Your task to perform on an android device: Search for seafood restaurants on Google Maps Image 0: 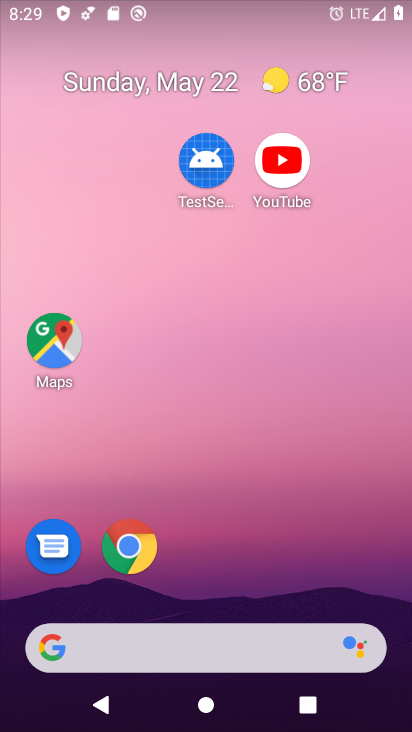
Step 0: drag from (229, 654) to (187, 421)
Your task to perform on an android device: Search for seafood restaurants on Google Maps Image 1: 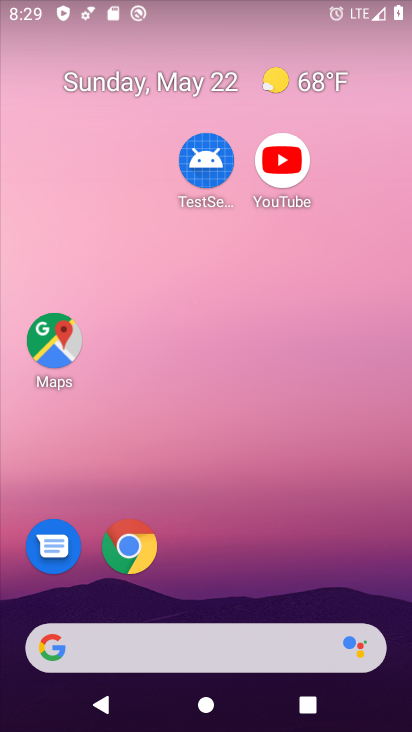
Step 1: drag from (231, 648) to (62, 137)
Your task to perform on an android device: Search for seafood restaurants on Google Maps Image 2: 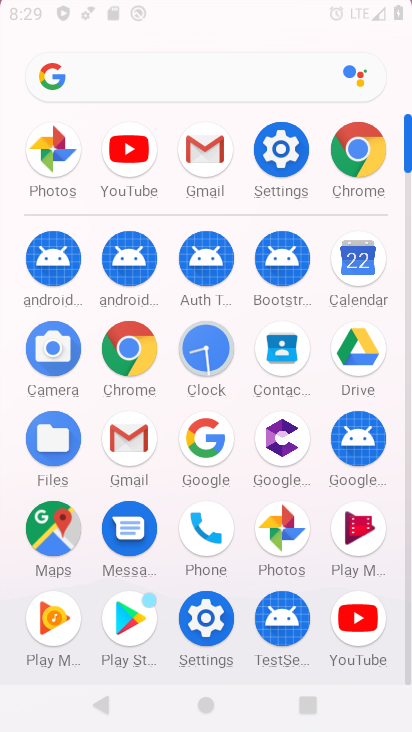
Step 2: drag from (240, 532) to (197, 150)
Your task to perform on an android device: Search for seafood restaurants on Google Maps Image 3: 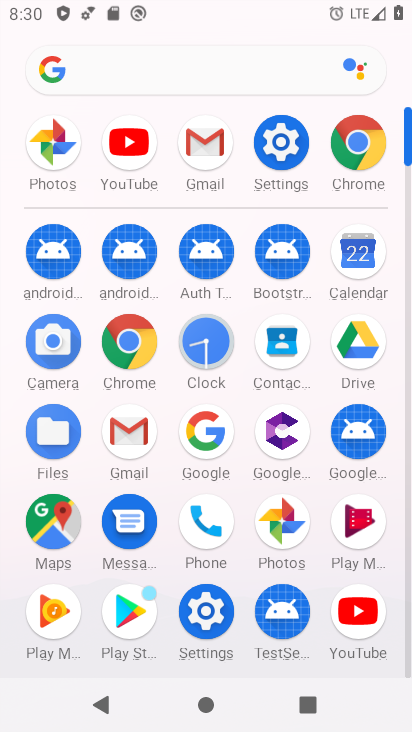
Step 3: click (67, 534)
Your task to perform on an android device: Search for seafood restaurants on Google Maps Image 4: 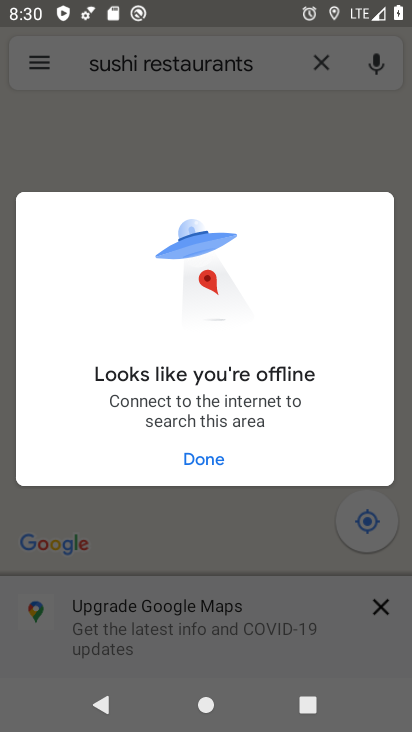
Step 4: click (92, 524)
Your task to perform on an android device: Search for seafood restaurants on Google Maps Image 5: 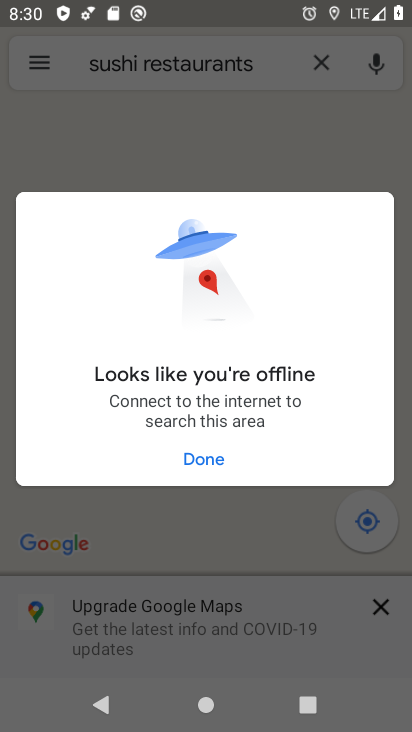
Step 5: click (50, 529)
Your task to perform on an android device: Search for seafood restaurants on Google Maps Image 6: 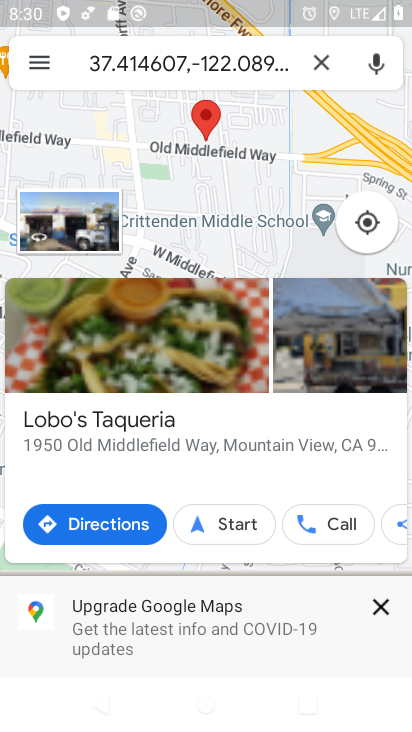
Step 6: click (318, 57)
Your task to perform on an android device: Search for seafood restaurants on Google Maps Image 7: 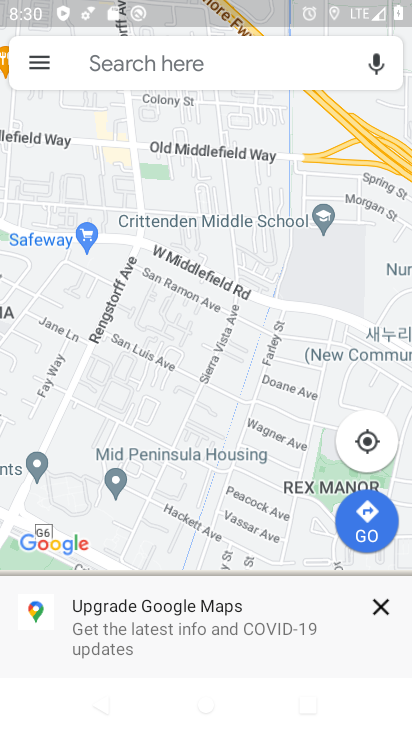
Step 7: click (91, 61)
Your task to perform on an android device: Search for seafood restaurants on Google Maps Image 8: 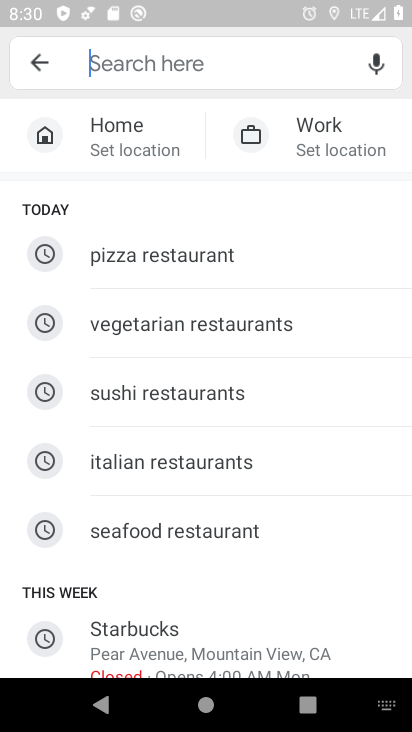
Step 8: click (155, 534)
Your task to perform on an android device: Search for seafood restaurants on Google Maps Image 9: 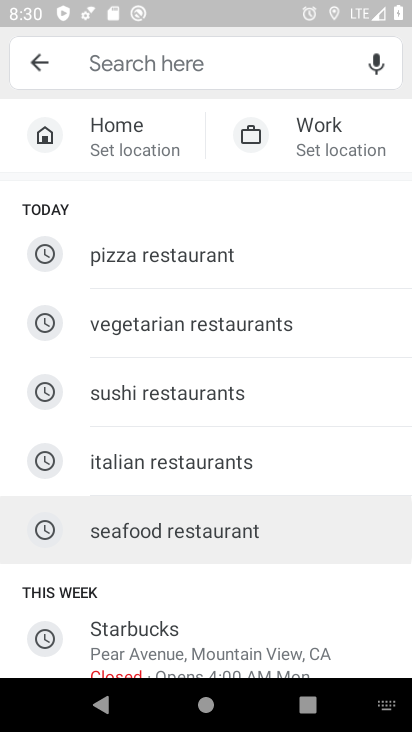
Step 9: click (155, 534)
Your task to perform on an android device: Search for seafood restaurants on Google Maps Image 10: 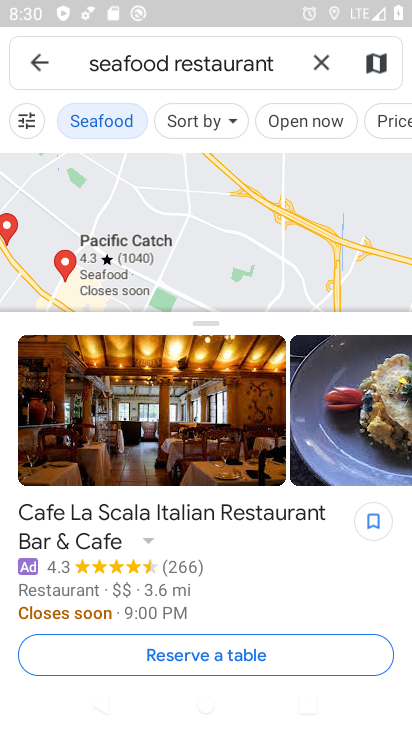
Step 10: task complete